Your task to perform on an android device: What is the recent news? Image 0: 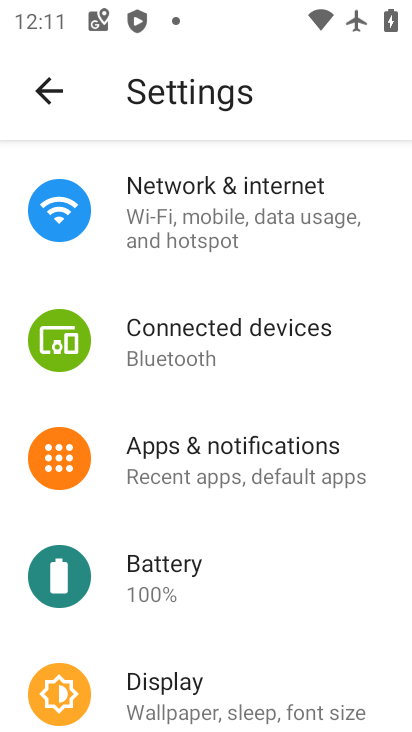
Step 0: press home button
Your task to perform on an android device: What is the recent news? Image 1: 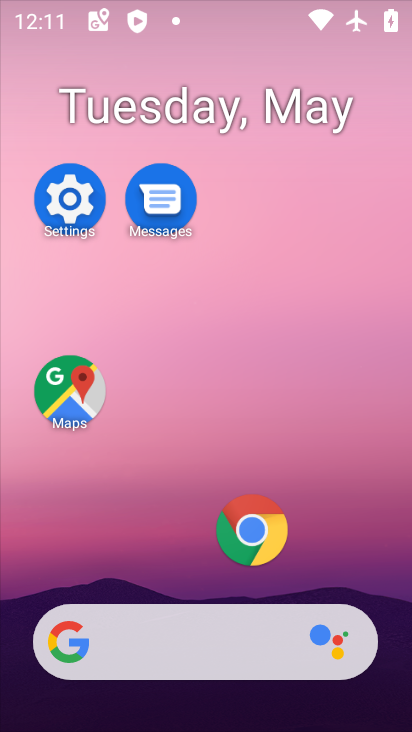
Step 1: drag from (159, 592) to (219, 120)
Your task to perform on an android device: What is the recent news? Image 2: 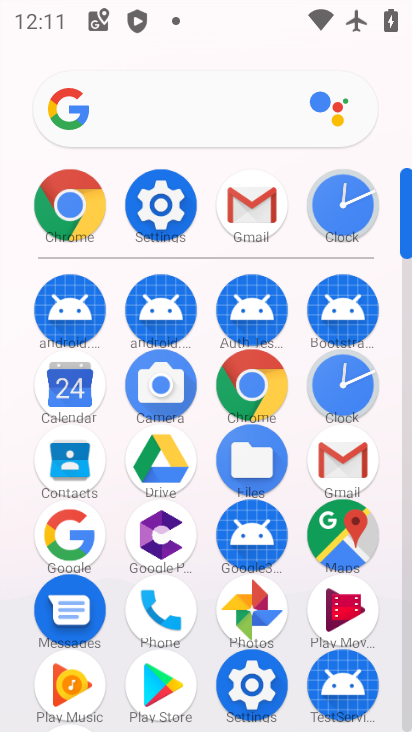
Step 2: click (210, 264)
Your task to perform on an android device: What is the recent news? Image 3: 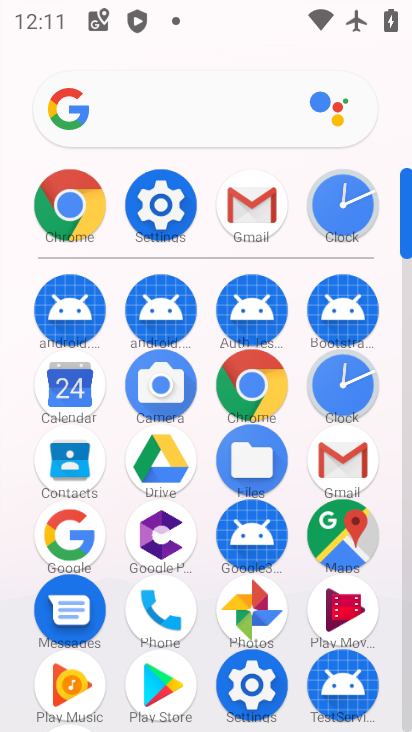
Step 3: click (73, 552)
Your task to perform on an android device: What is the recent news? Image 4: 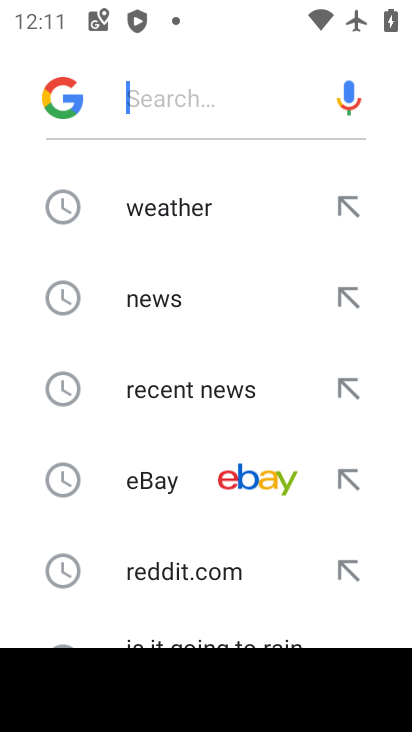
Step 4: click (62, 105)
Your task to perform on an android device: What is the recent news? Image 5: 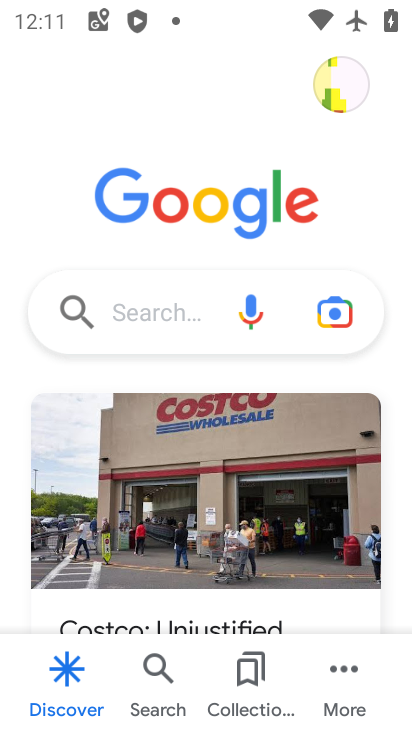
Step 5: click (139, 189)
Your task to perform on an android device: What is the recent news? Image 6: 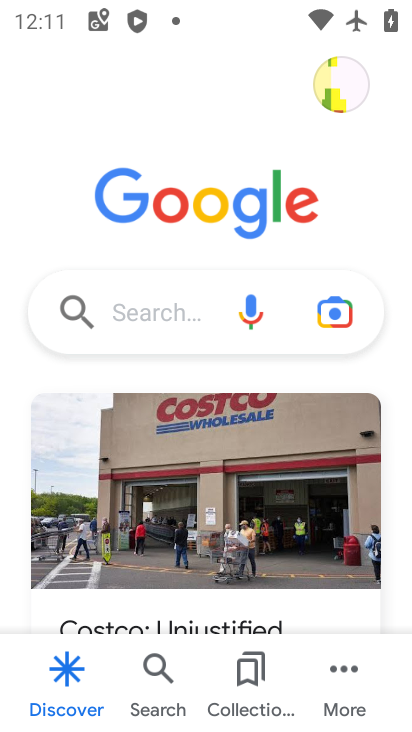
Step 6: task complete